Your task to perform on an android device: open the mobile data screen to see how much data has been used Image 0: 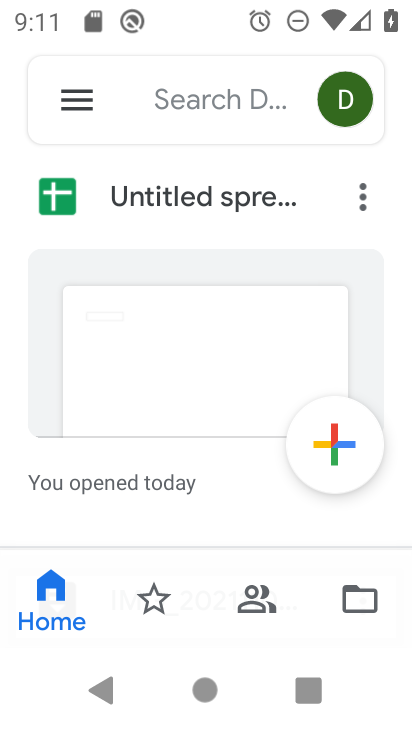
Step 0: press home button
Your task to perform on an android device: open the mobile data screen to see how much data has been used Image 1: 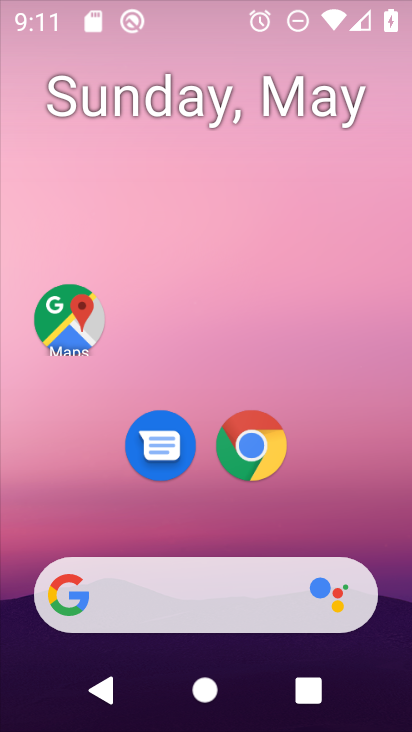
Step 1: drag from (174, 654) to (206, 299)
Your task to perform on an android device: open the mobile data screen to see how much data has been used Image 2: 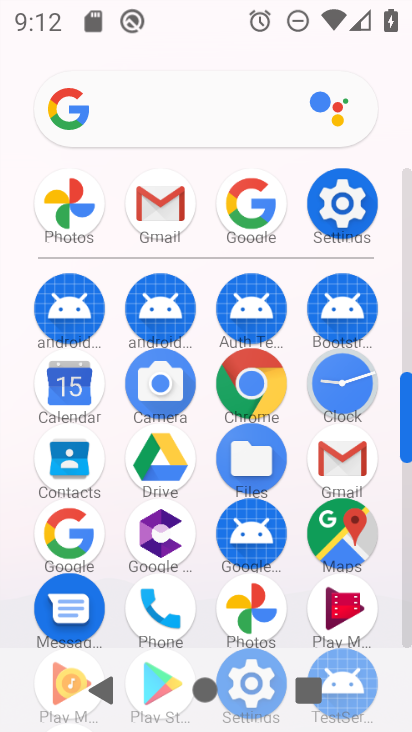
Step 2: click (345, 214)
Your task to perform on an android device: open the mobile data screen to see how much data has been used Image 3: 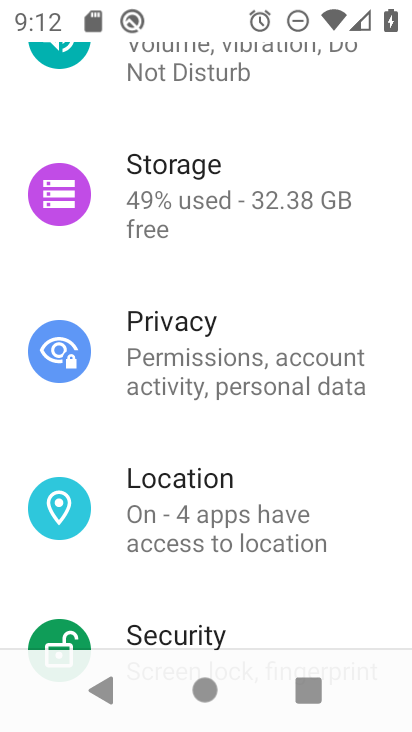
Step 3: drag from (190, 356) to (150, 651)
Your task to perform on an android device: open the mobile data screen to see how much data has been used Image 4: 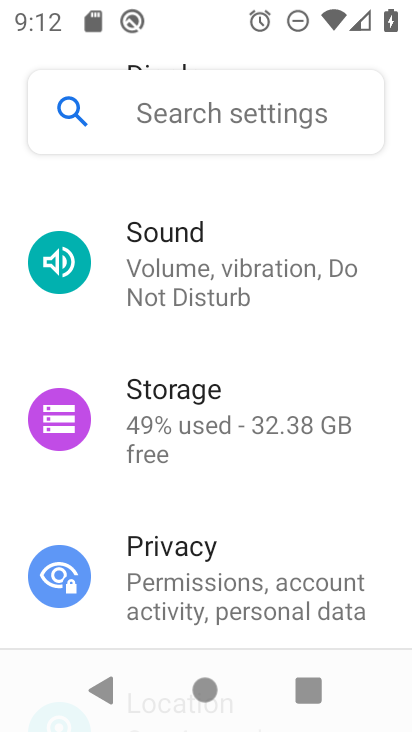
Step 4: drag from (206, 409) to (170, 664)
Your task to perform on an android device: open the mobile data screen to see how much data has been used Image 5: 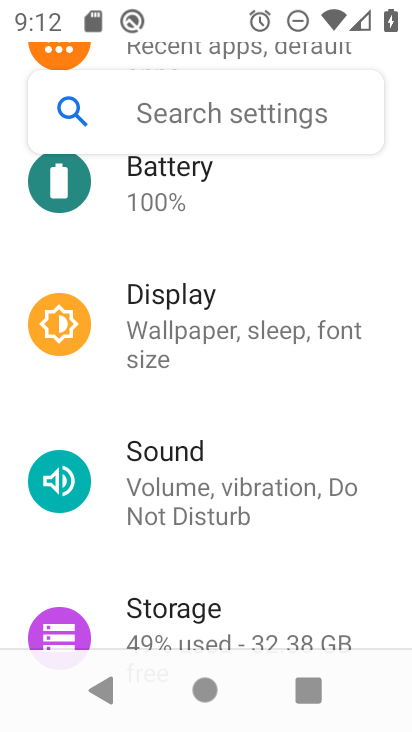
Step 5: drag from (230, 349) to (188, 679)
Your task to perform on an android device: open the mobile data screen to see how much data has been used Image 6: 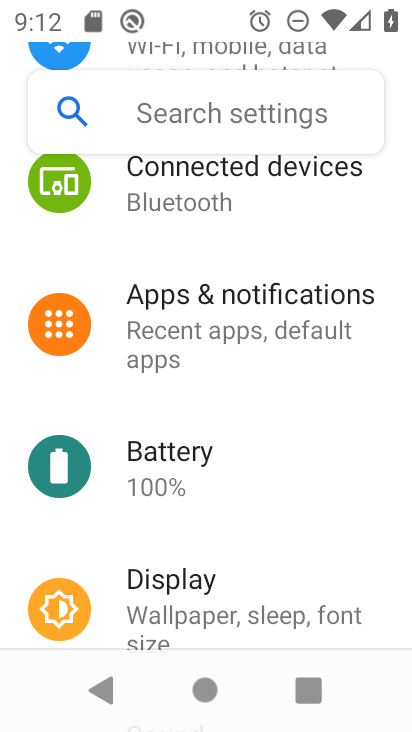
Step 6: drag from (218, 356) to (181, 680)
Your task to perform on an android device: open the mobile data screen to see how much data has been used Image 7: 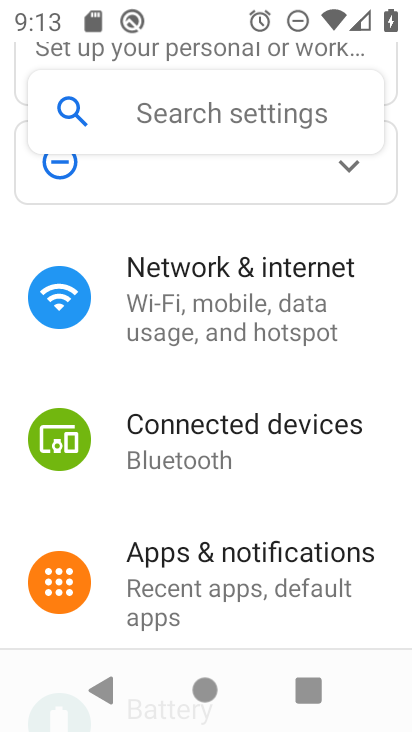
Step 7: drag from (228, 511) to (227, 431)
Your task to perform on an android device: open the mobile data screen to see how much data has been used Image 8: 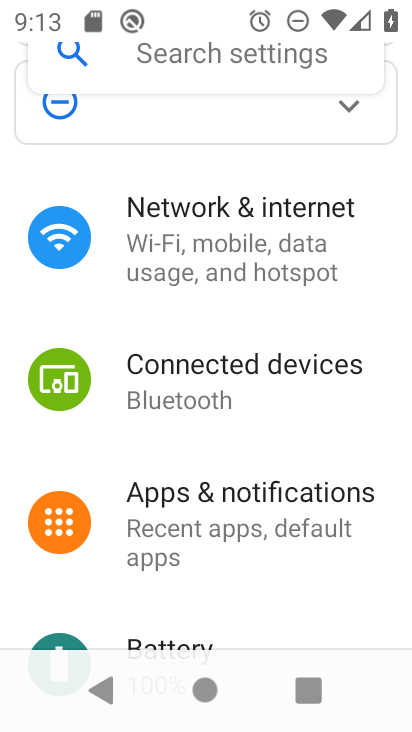
Step 8: click (225, 240)
Your task to perform on an android device: open the mobile data screen to see how much data has been used Image 9: 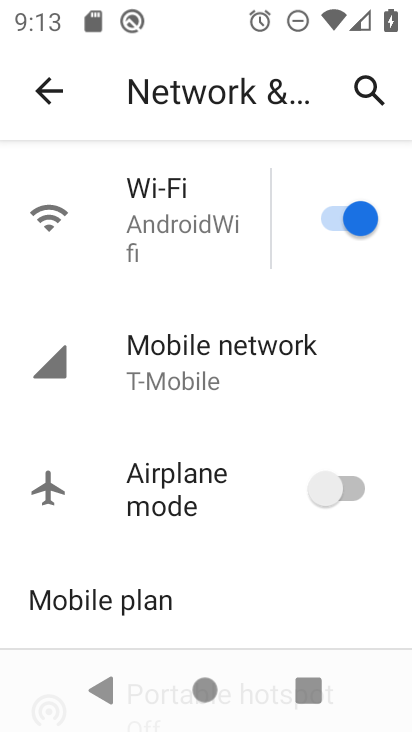
Step 9: click (188, 373)
Your task to perform on an android device: open the mobile data screen to see how much data has been used Image 10: 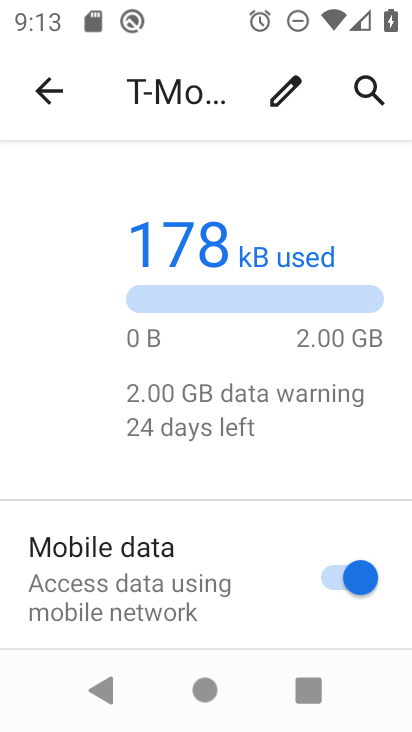
Step 10: task complete